Your task to perform on an android device: Go to privacy settings Image 0: 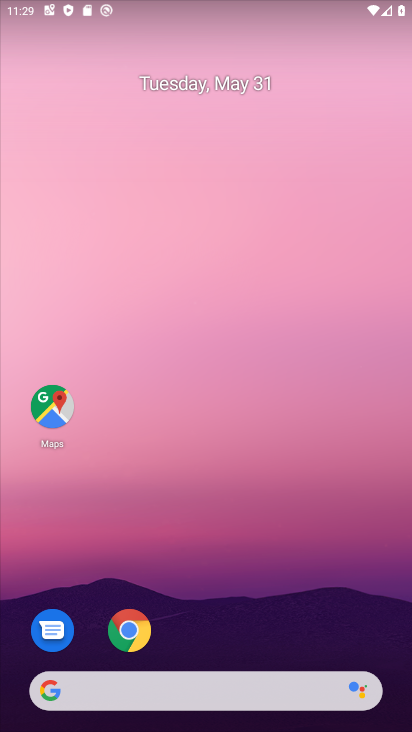
Step 0: drag from (105, 725) to (94, 30)
Your task to perform on an android device: Go to privacy settings Image 1: 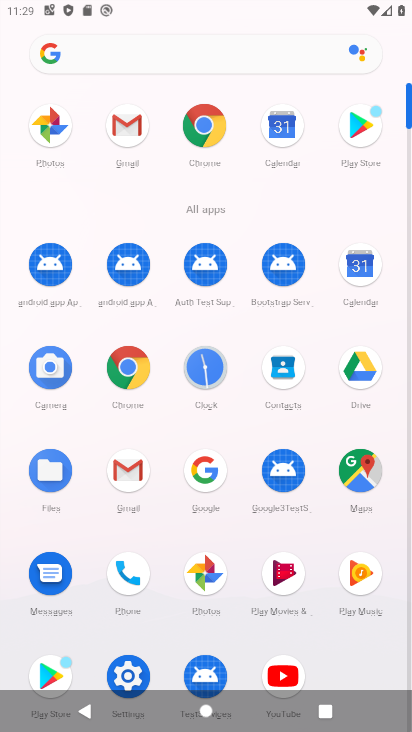
Step 1: click (130, 678)
Your task to perform on an android device: Go to privacy settings Image 2: 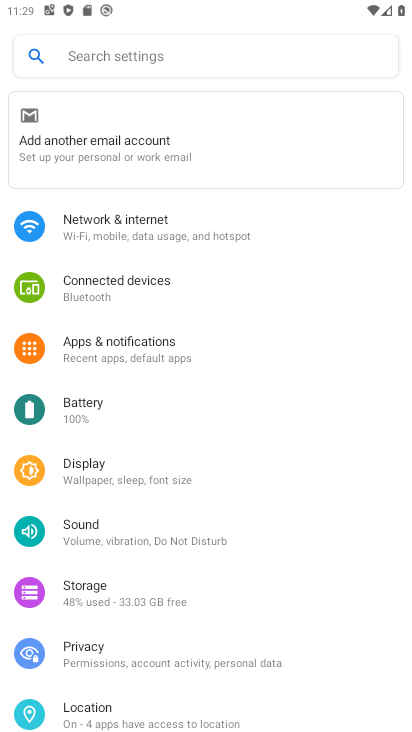
Step 2: click (190, 663)
Your task to perform on an android device: Go to privacy settings Image 3: 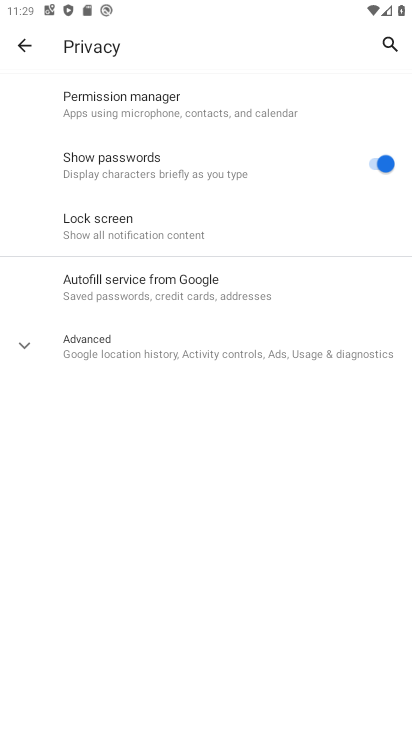
Step 3: task complete